Your task to perform on an android device: Go to network settings Image 0: 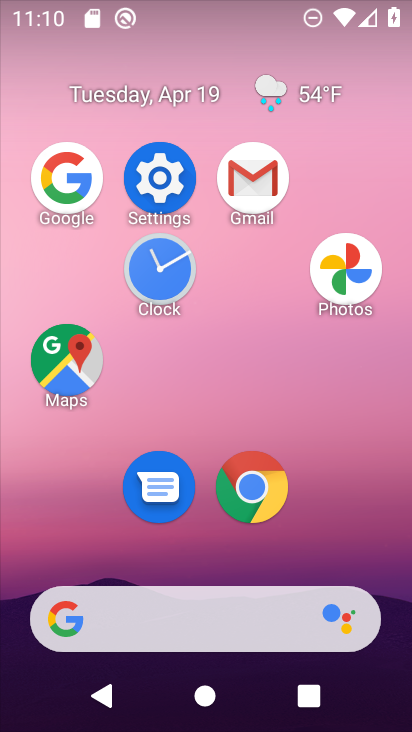
Step 0: click (164, 169)
Your task to perform on an android device: Go to network settings Image 1: 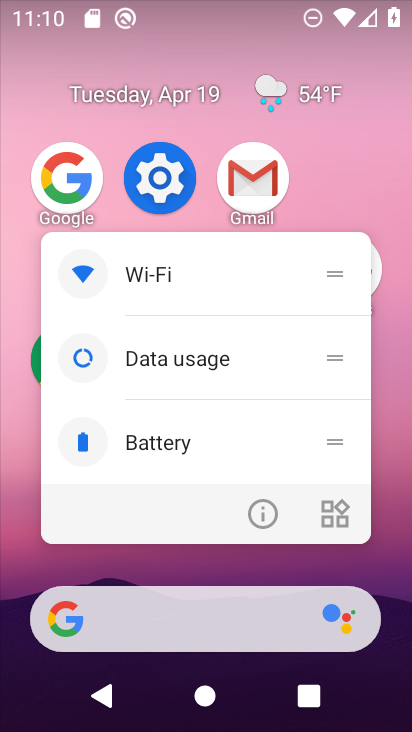
Step 1: click (164, 169)
Your task to perform on an android device: Go to network settings Image 2: 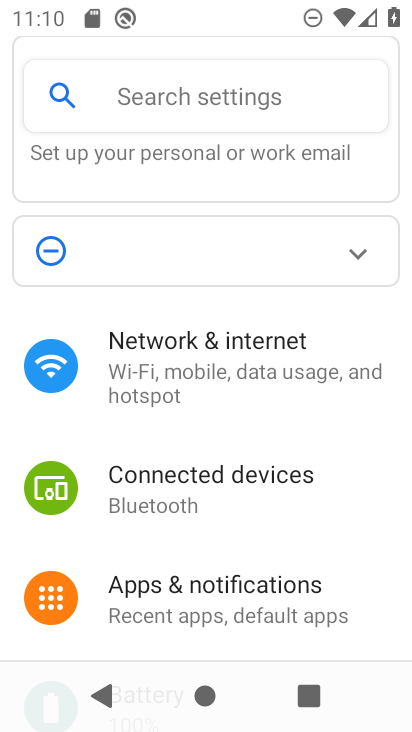
Step 2: click (226, 360)
Your task to perform on an android device: Go to network settings Image 3: 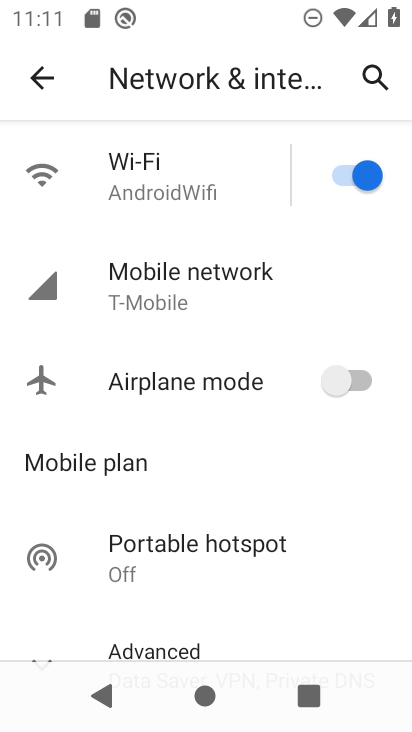
Step 3: drag from (135, 172) to (107, 505)
Your task to perform on an android device: Go to network settings Image 4: 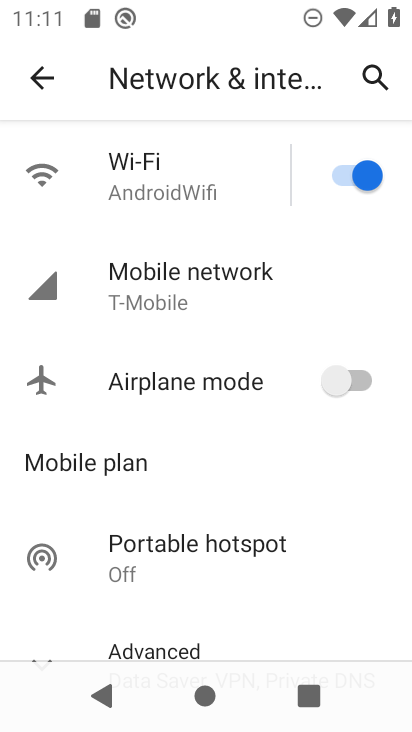
Step 4: click (222, 289)
Your task to perform on an android device: Go to network settings Image 5: 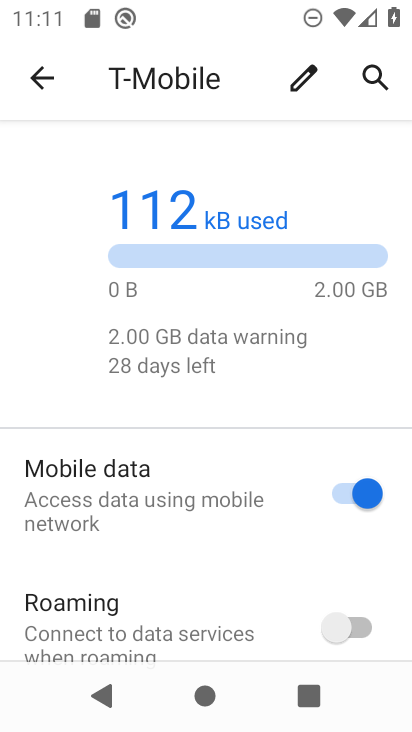
Step 5: click (41, 76)
Your task to perform on an android device: Go to network settings Image 6: 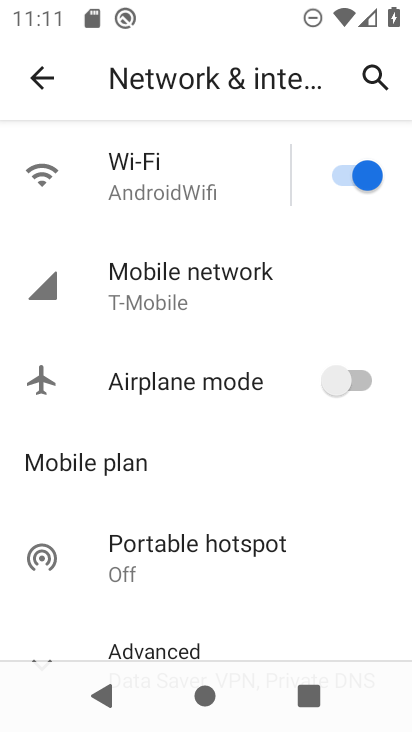
Step 6: click (162, 269)
Your task to perform on an android device: Go to network settings Image 7: 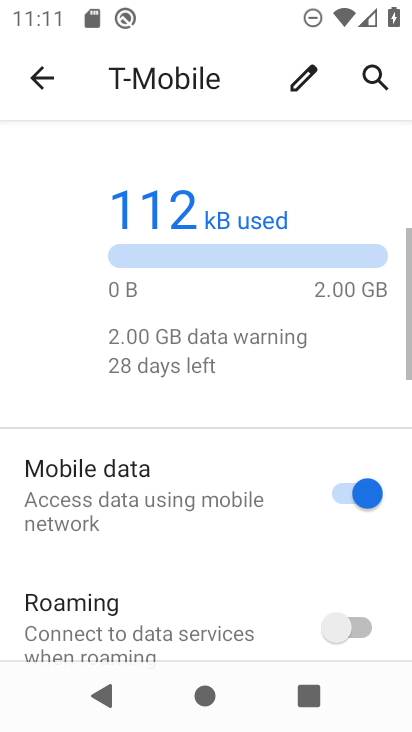
Step 7: task complete